Your task to perform on an android device: refresh tabs in the chrome app Image 0: 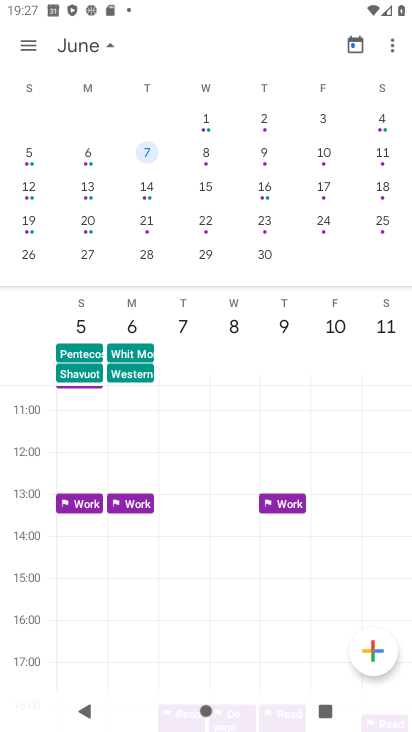
Step 0: press home button
Your task to perform on an android device: refresh tabs in the chrome app Image 1: 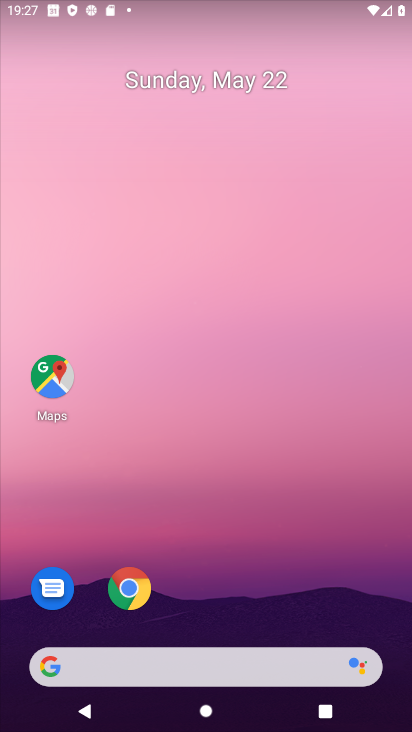
Step 1: click (126, 588)
Your task to perform on an android device: refresh tabs in the chrome app Image 2: 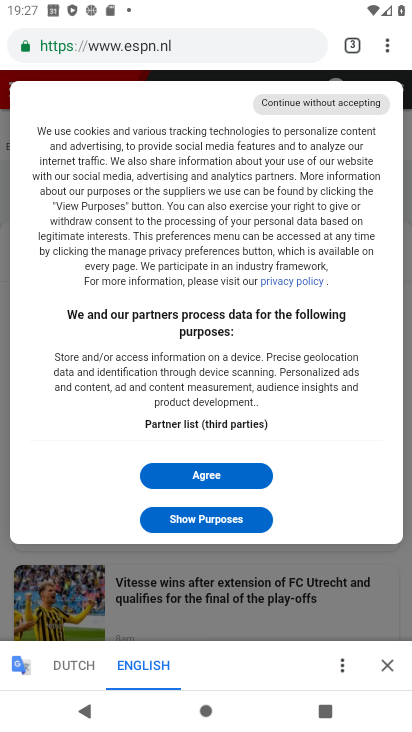
Step 2: click (391, 46)
Your task to perform on an android device: refresh tabs in the chrome app Image 3: 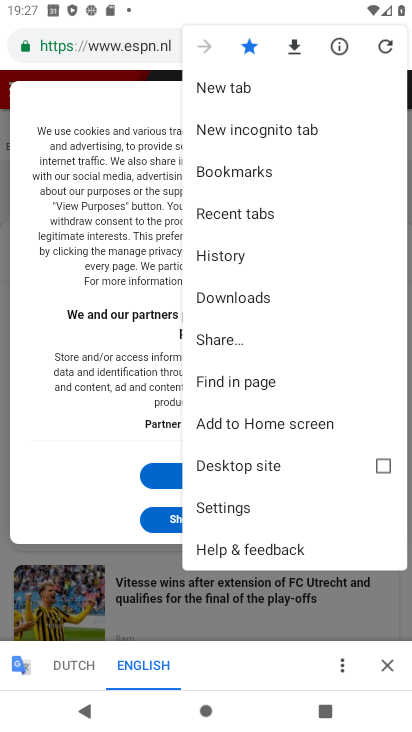
Step 3: click (387, 43)
Your task to perform on an android device: refresh tabs in the chrome app Image 4: 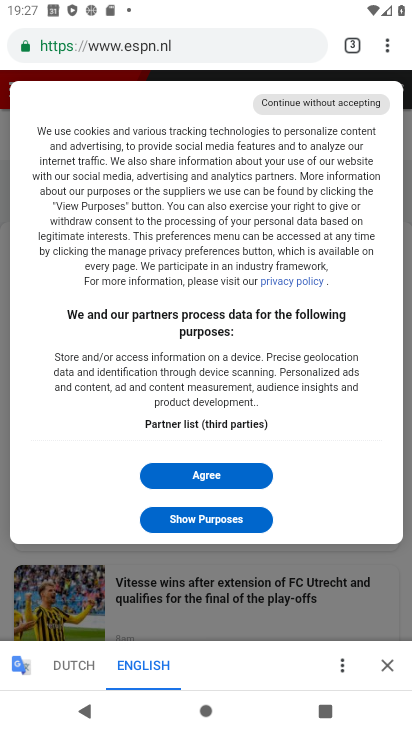
Step 4: task complete